Your task to perform on an android device: Open Android settings Image 0: 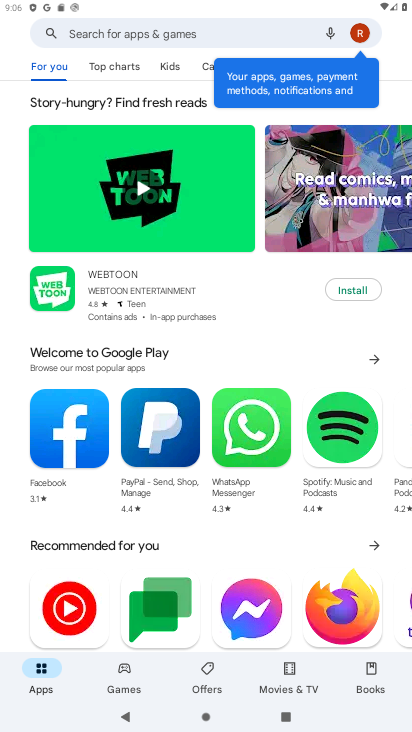
Step 0: press home button
Your task to perform on an android device: Open Android settings Image 1: 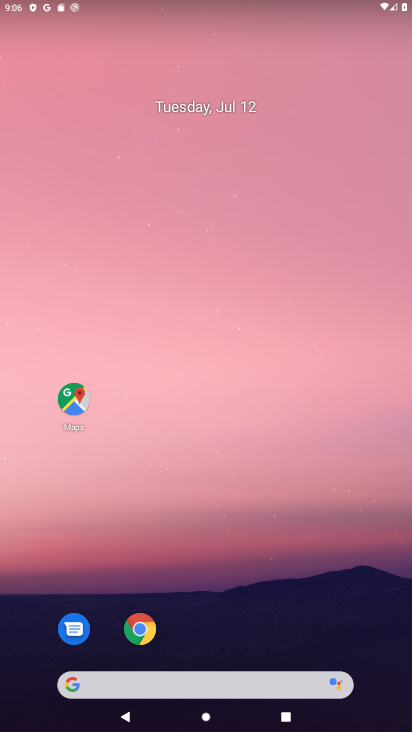
Step 1: drag from (287, 620) to (245, 11)
Your task to perform on an android device: Open Android settings Image 2: 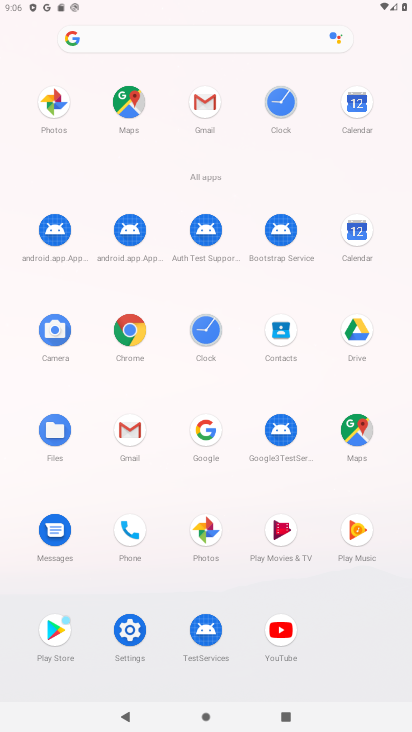
Step 2: click (136, 629)
Your task to perform on an android device: Open Android settings Image 3: 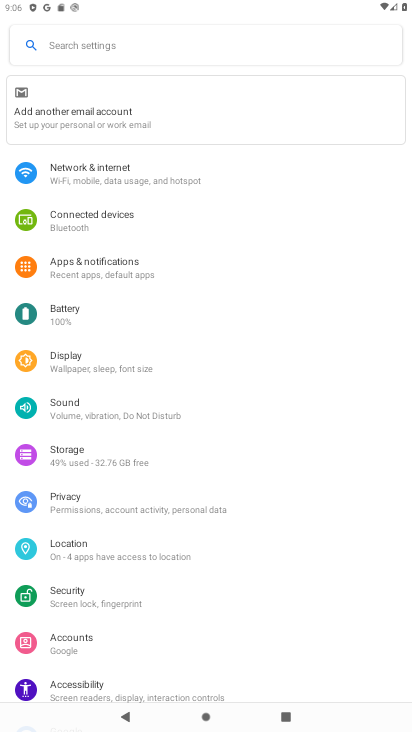
Step 3: task complete